Your task to perform on an android device: Open the Play Movies app and select the watchlist tab. Image 0: 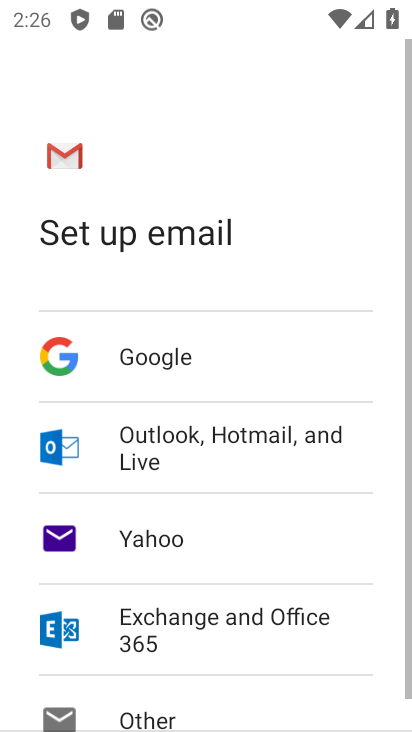
Step 0: press home button
Your task to perform on an android device: Open the Play Movies app and select the watchlist tab. Image 1: 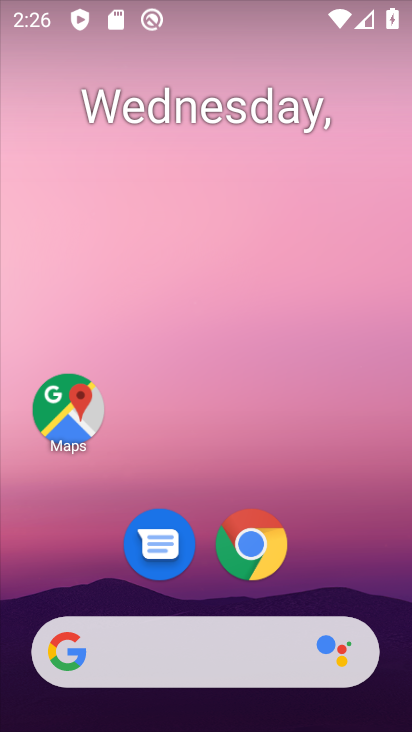
Step 1: drag from (175, 601) to (263, 198)
Your task to perform on an android device: Open the Play Movies app and select the watchlist tab. Image 2: 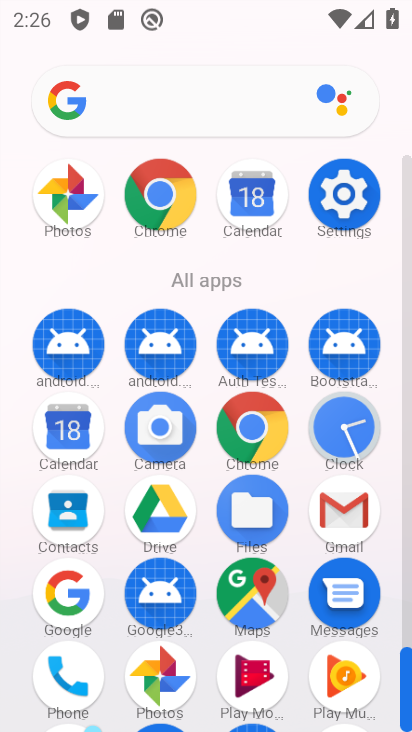
Step 2: drag from (240, 576) to (291, 415)
Your task to perform on an android device: Open the Play Movies app and select the watchlist tab. Image 3: 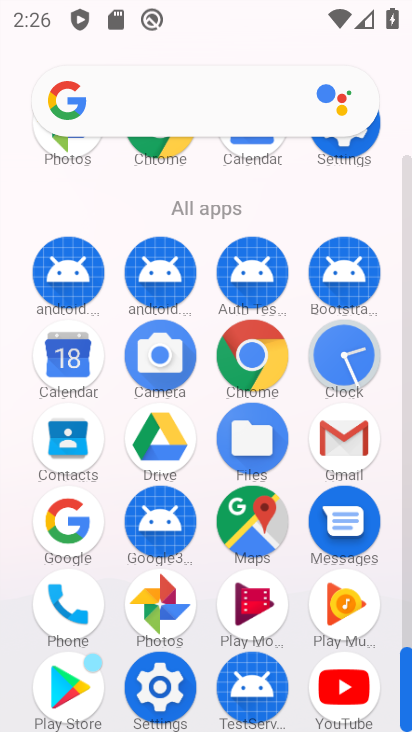
Step 3: click (273, 622)
Your task to perform on an android device: Open the Play Movies app and select the watchlist tab. Image 4: 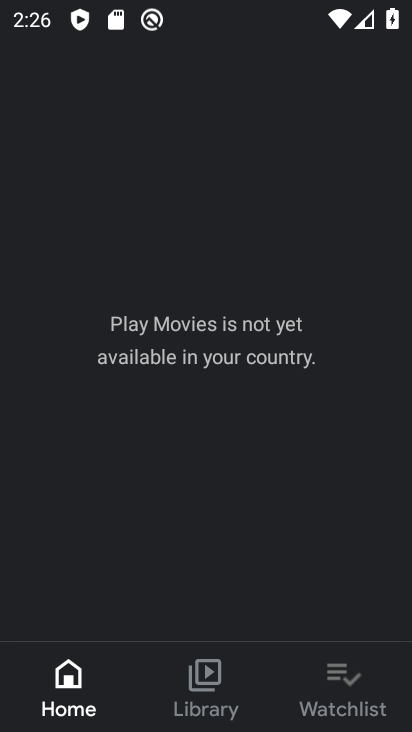
Step 4: click (347, 683)
Your task to perform on an android device: Open the Play Movies app and select the watchlist tab. Image 5: 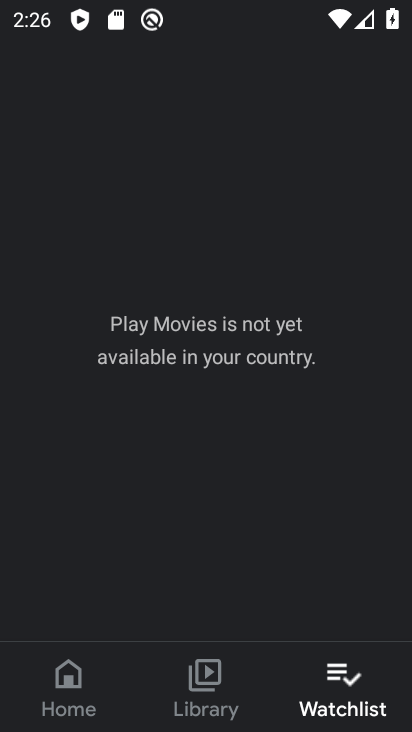
Step 5: task complete